Your task to perform on an android device: delete the emails in spam in the gmail app Image 0: 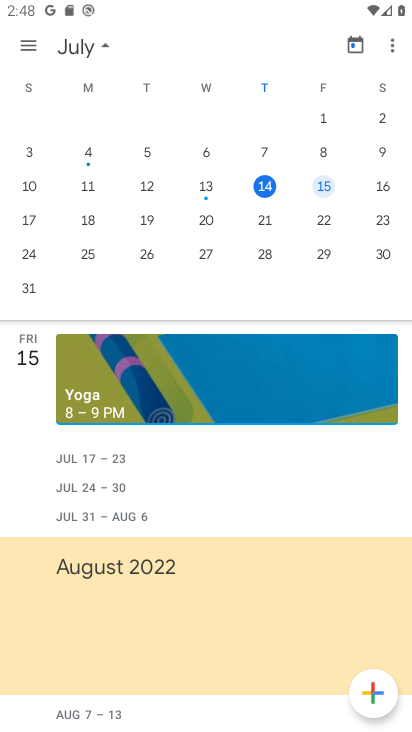
Step 0: press back button
Your task to perform on an android device: delete the emails in spam in the gmail app Image 1: 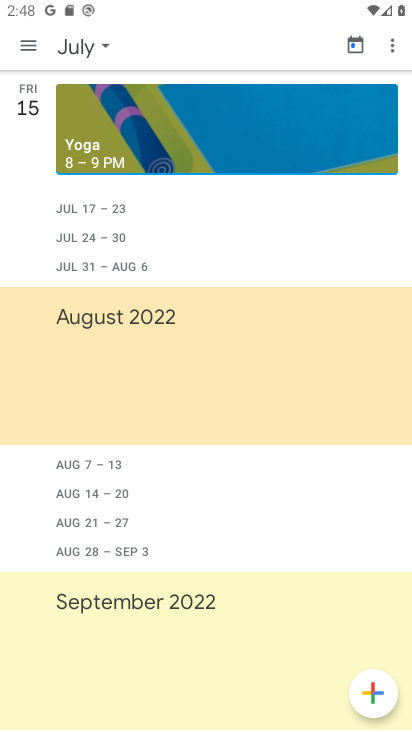
Step 1: press home button
Your task to perform on an android device: delete the emails in spam in the gmail app Image 2: 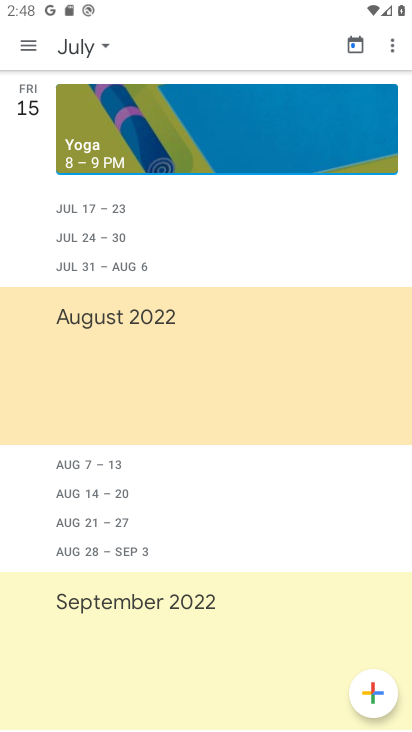
Step 2: press home button
Your task to perform on an android device: delete the emails in spam in the gmail app Image 3: 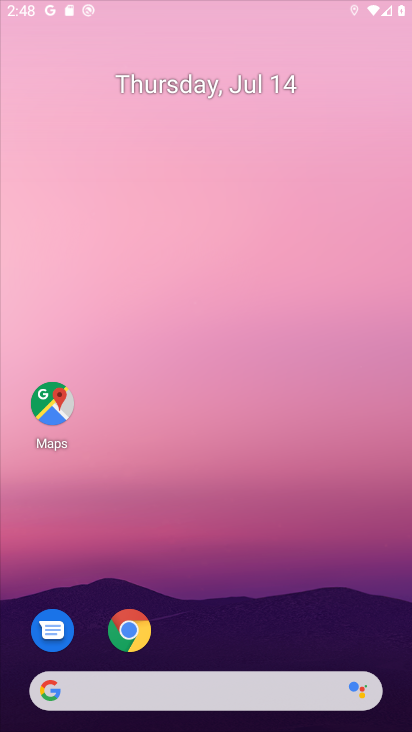
Step 3: press home button
Your task to perform on an android device: delete the emails in spam in the gmail app Image 4: 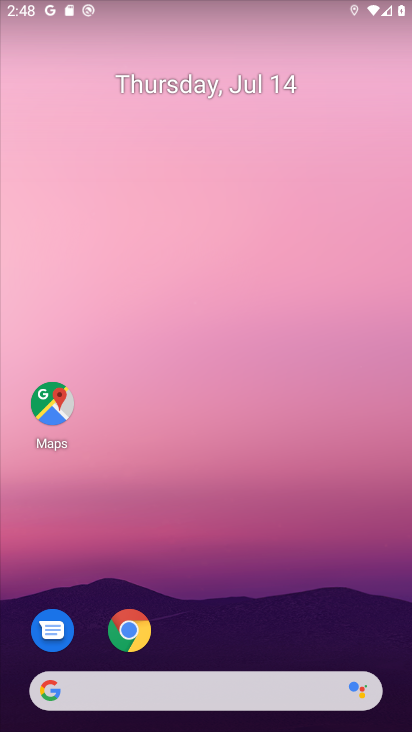
Step 4: drag from (191, 255) to (129, 4)
Your task to perform on an android device: delete the emails in spam in the gmail app Image 5: 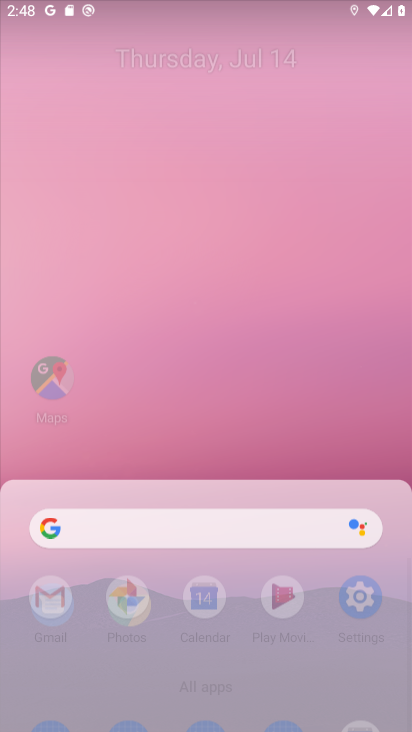
Step 5: drag from (263, 563) to (56, 15)
Your task to perform on an android device: delete the emails in spam in the gmail app Image 6: 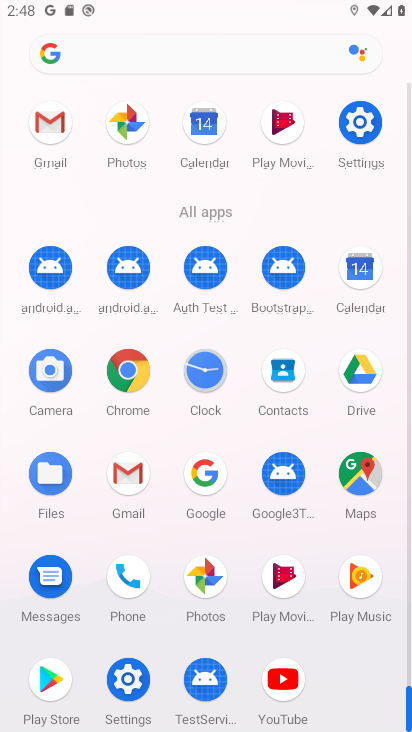
Step 6: drag from (164, 236) to (159, 75)
Your task to perform on an android device: delete the emails in spam in the gmail app Image 7: 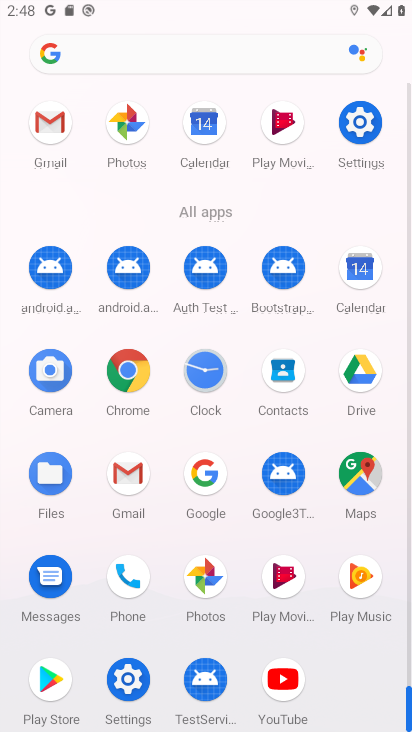
Step 7: click (134, 451)
Your task to perform on an android device: delete the emails in spam in the gmail app Image 8: 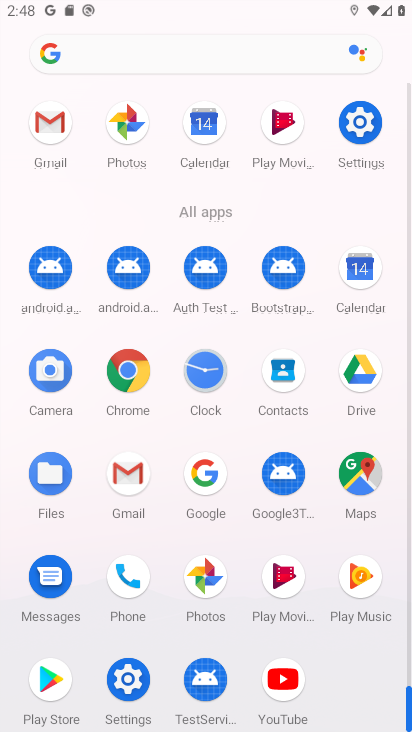
Step 8: click (134, 459)
Your task to perform on an android device: delete the emails in spam in the gmail app Image 9: 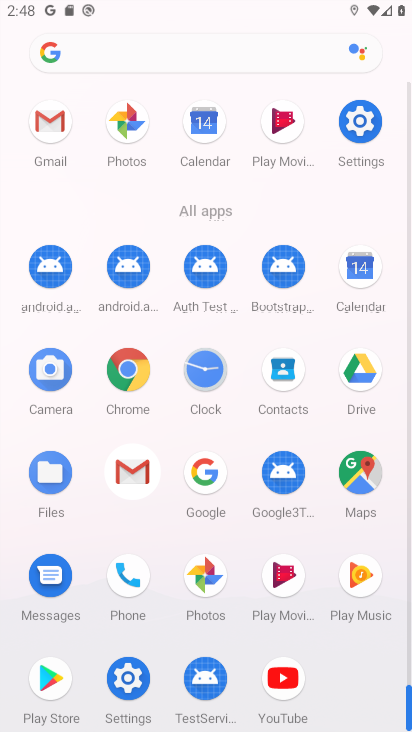
Step 9: click (134, 459)
Your task to perform on an android device: delete the emails in spam in the gmail app Image 10: 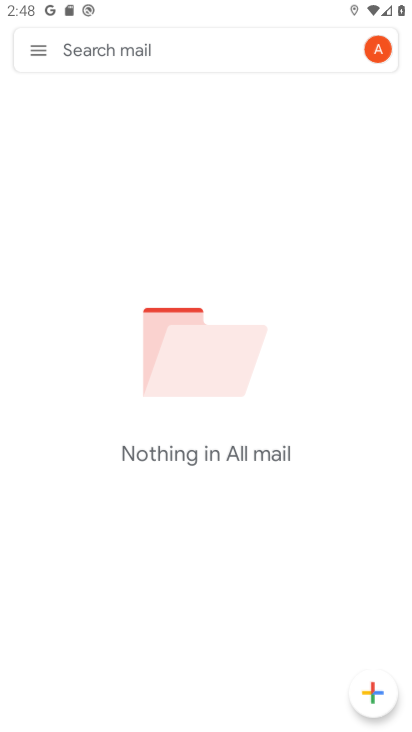
Step 10: click (137, 467)
Your task to perform on an android device: delete the emails in spam in the gmail app Image 11: 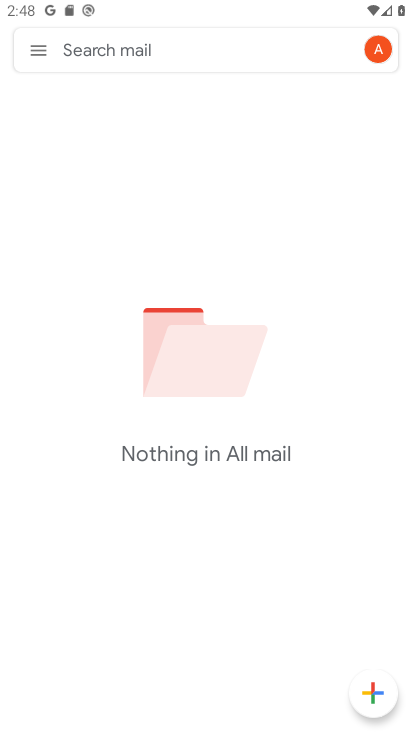
Step 11: click (36, 38)
Your task to perform on an android device: delete the emails in spam in the gmail app Image 12: 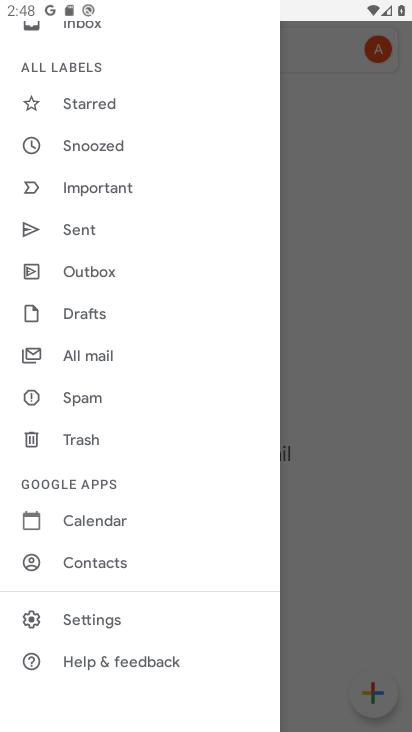
Step 12: click (74, 393)
Your task to perform on an android device: delete the emails in spam in the gmail app Image 13: 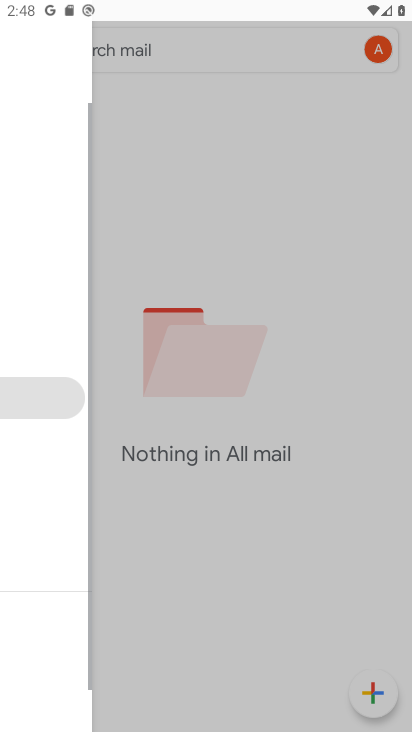
Step 13: click (76, 394)
Your task to perform on an android device: delete the emails in spam in the gmail app Image 14: 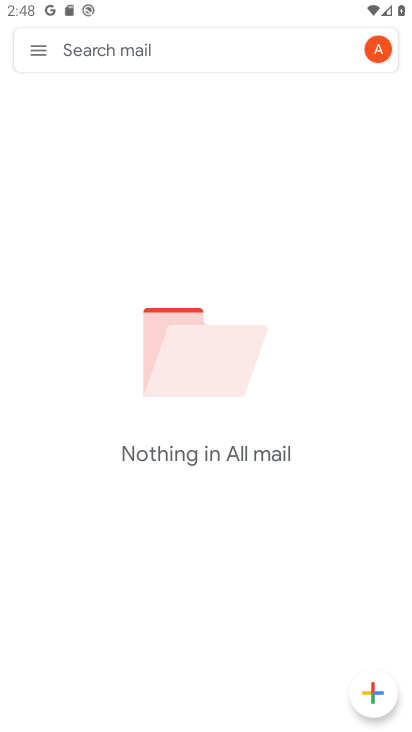
Step 14: click (76, 394)
Your task to perform on an android device: delete the emails in spam in the gmail app Image 15: 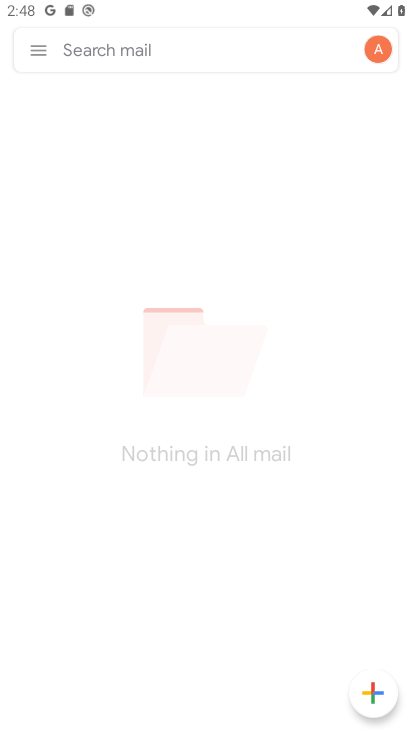
Step 15: click (77, 395)
Your task to perform on an android device: delete the emails in spam in the gmail app Image 16: 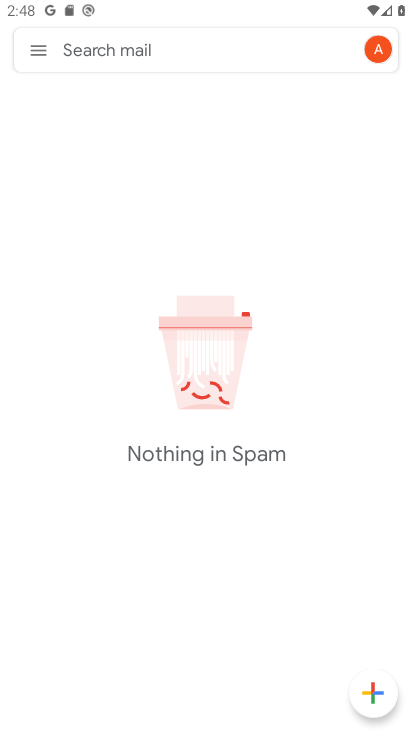
Step 16: task complete